Your task to perform on an android device: install app "Firefox Browser" Image 0: 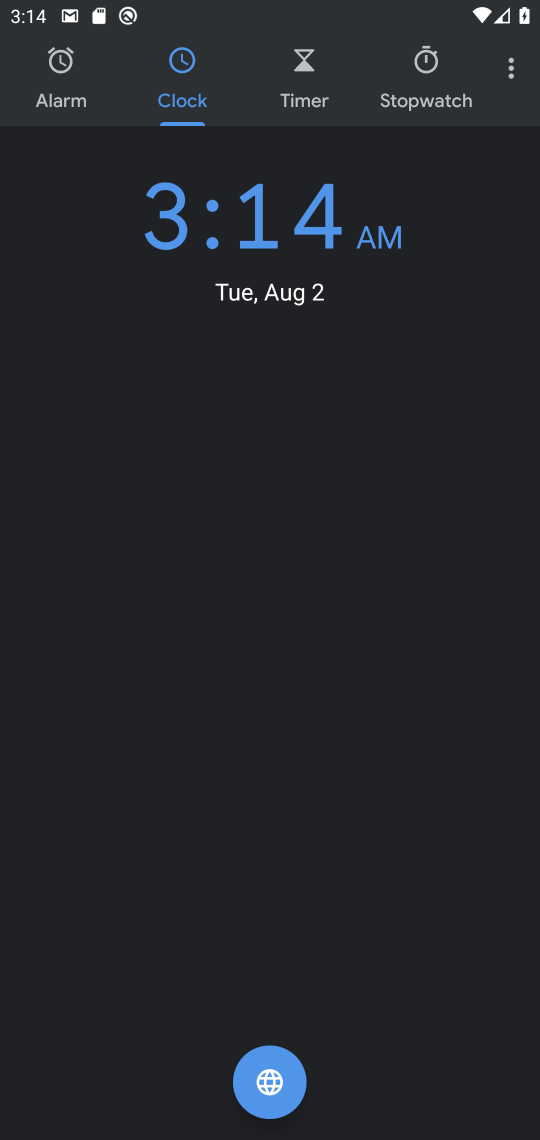
Step 0: press home button
Your task to perform on an android device: install app "Firefox Browser" Image 1: 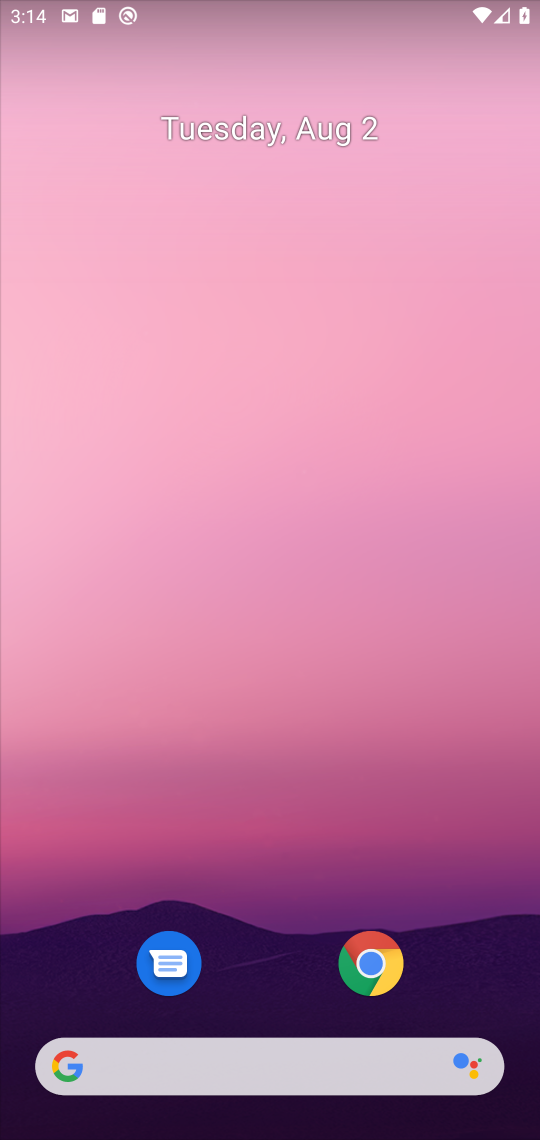
Step 1: drag from (259, 980) to (277, 41)
Your task to perform on an android device: install app "Firefox Browser" Image 2: 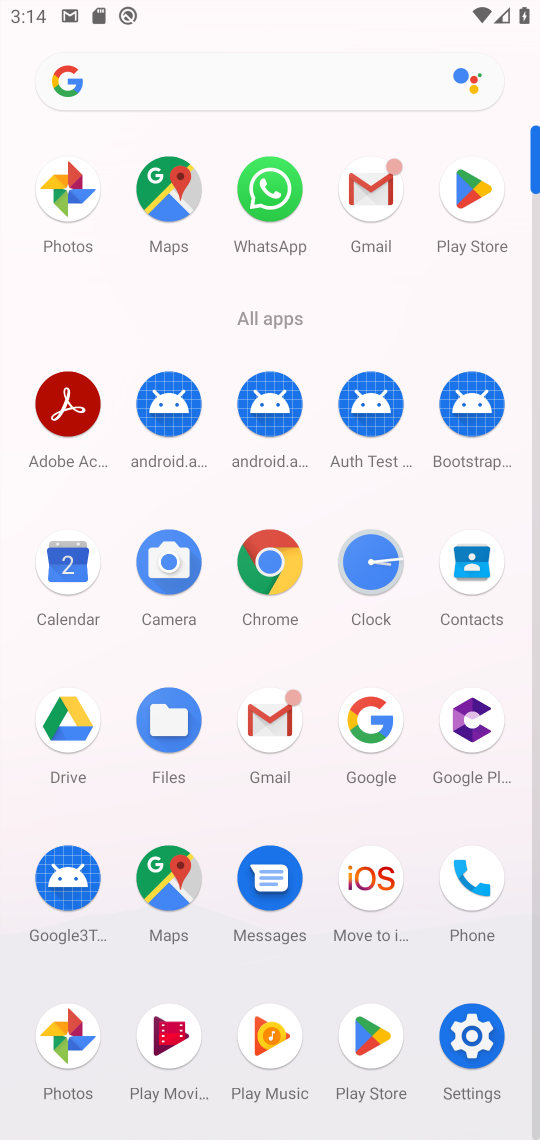
Step 2: click (473, 192)
Your task to perform on an android device: install app "Firefox Browser" Image 3: 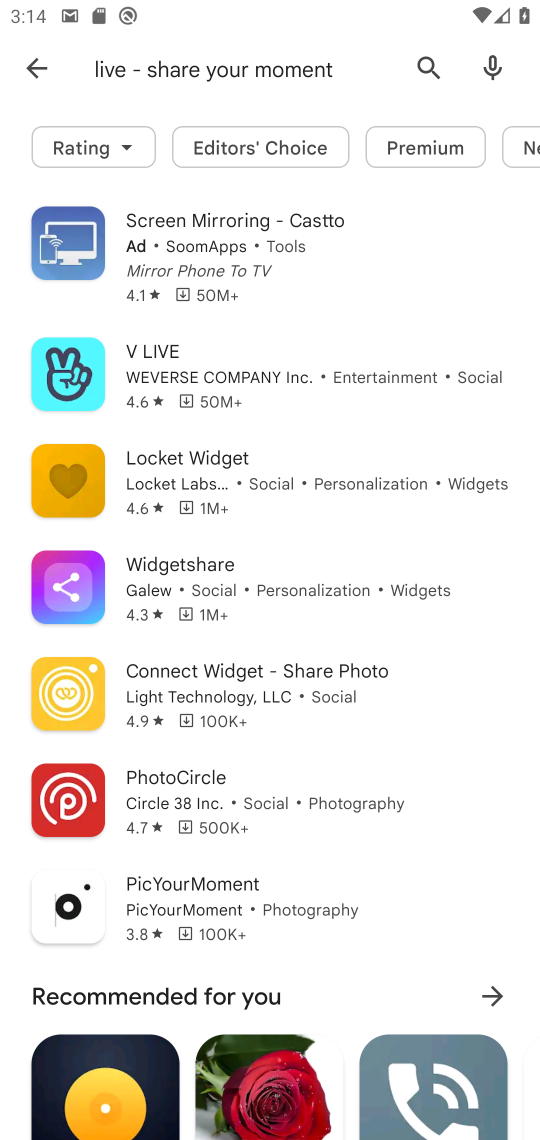
Step 3: click (427, 75)
Your task to perform on an android device: install app "Firefox Browser" Image 4: 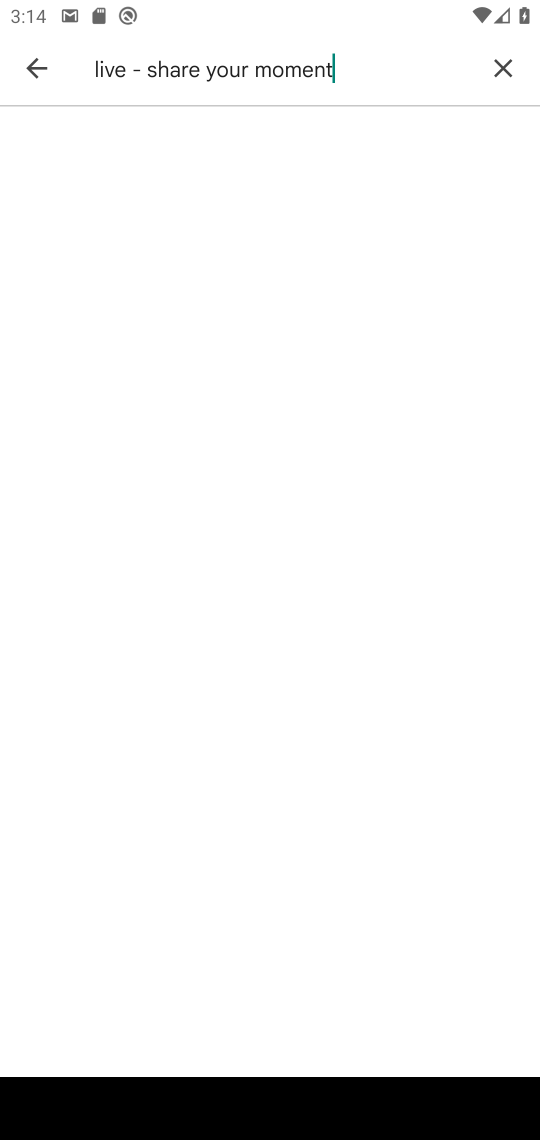
Step 4: click (505, 65)
Your task to perform on an android device: install app "Firefox Browser" Image 5: 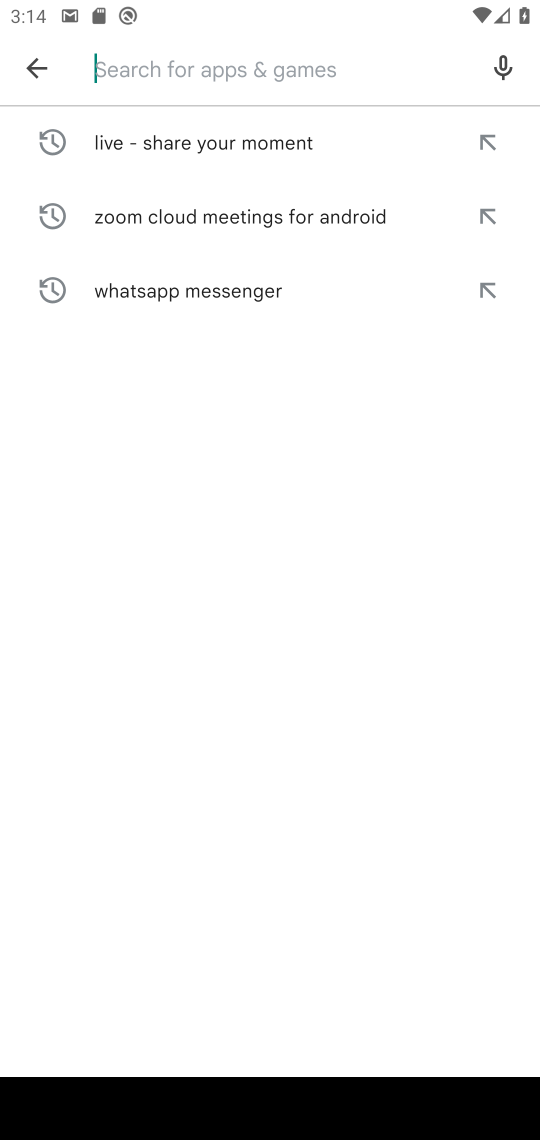
Step 5: type "firefox browser"
Your task to perform on an android device: install app "Firefox Browser" Image 6: 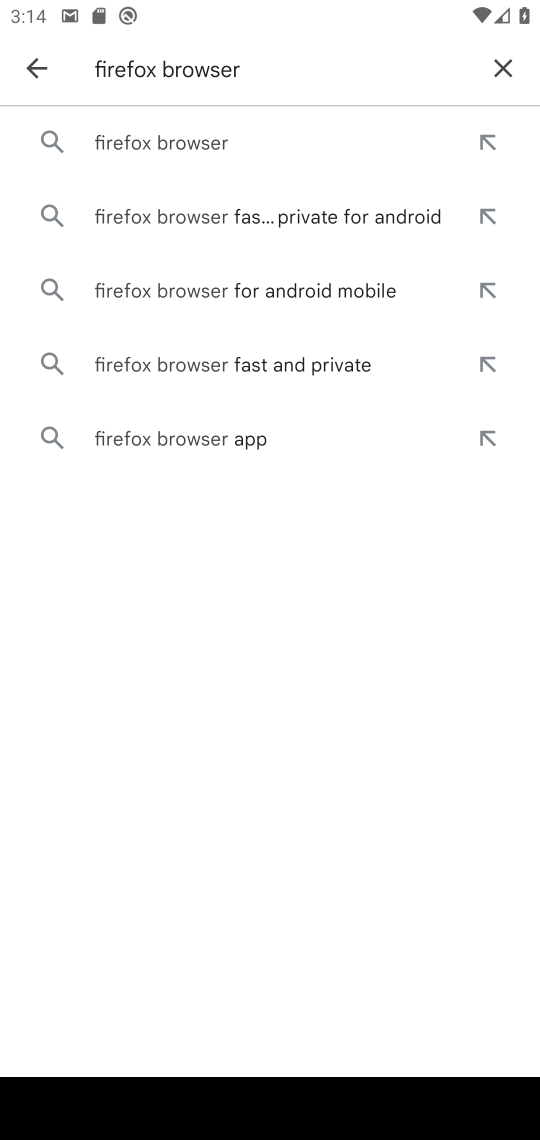
Step 6: click (267, 145)
Your task to perform on an android device: install app "Firefox Browser" Image 7: 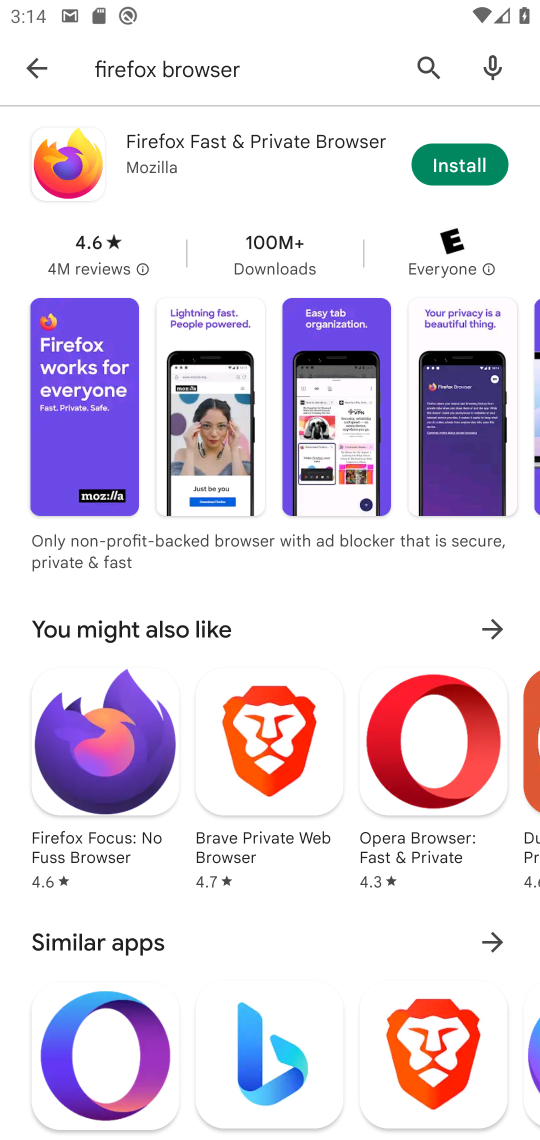
Step 7: click (267, 145)
Your task to perform on an android device: install app "Firefox Browser" Image 8: 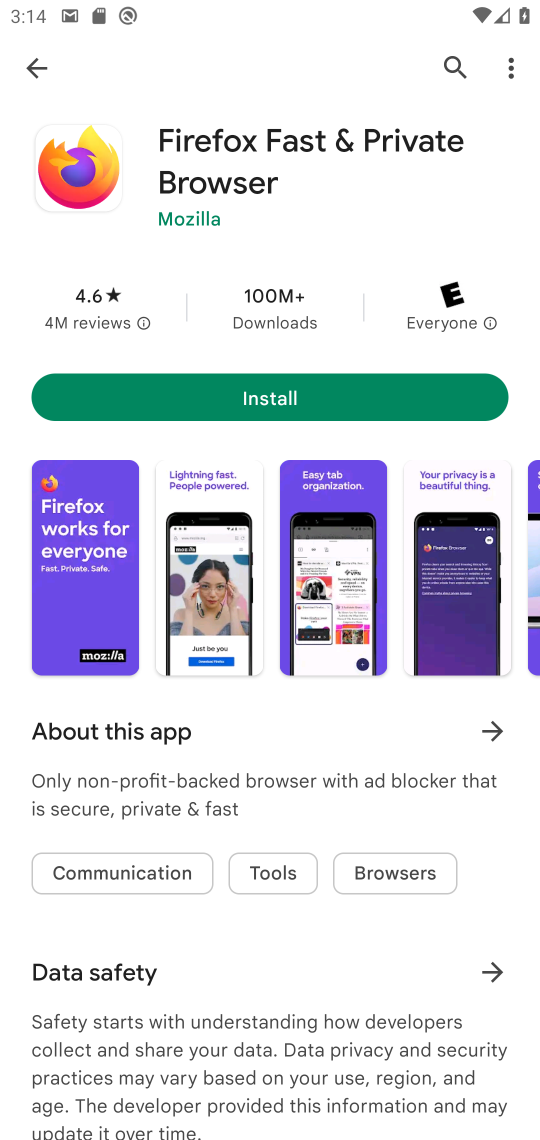
Step 8: click (306, 407)
Your task to perform on an android device: install app "Firefox Browser" Image 9: 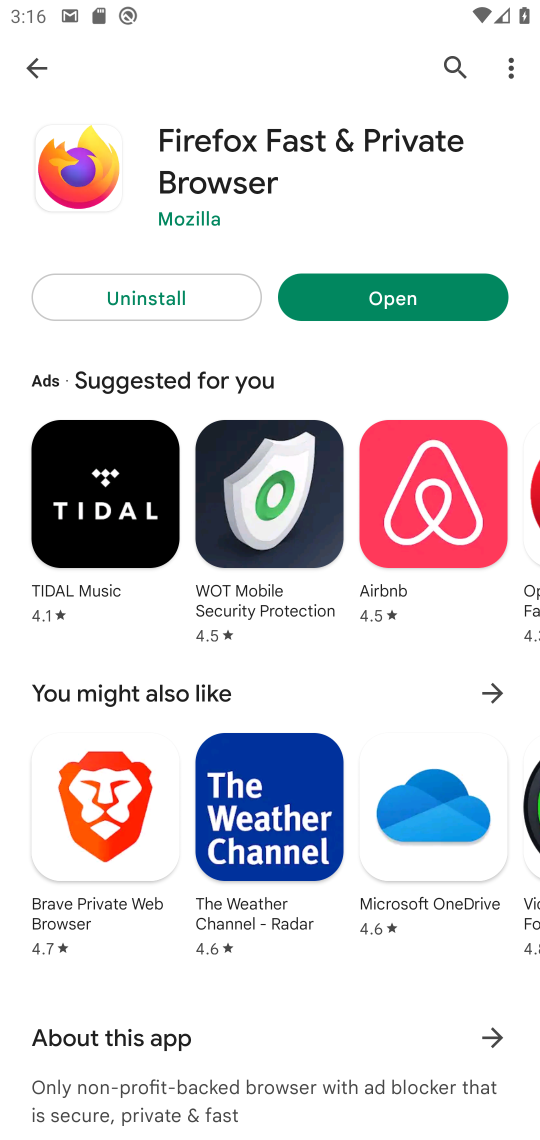
Step 9: task complete